Your task to perform on an android device: turn notification dots off Image 0: 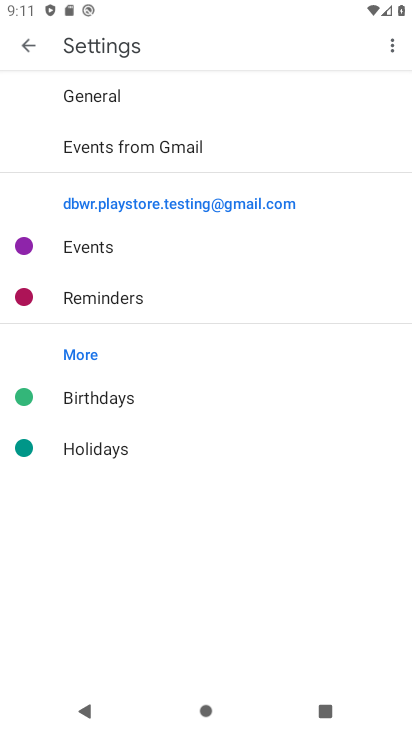
Step 0: press home button
Your task to perform on an android device: turn notification dots off Image 1: 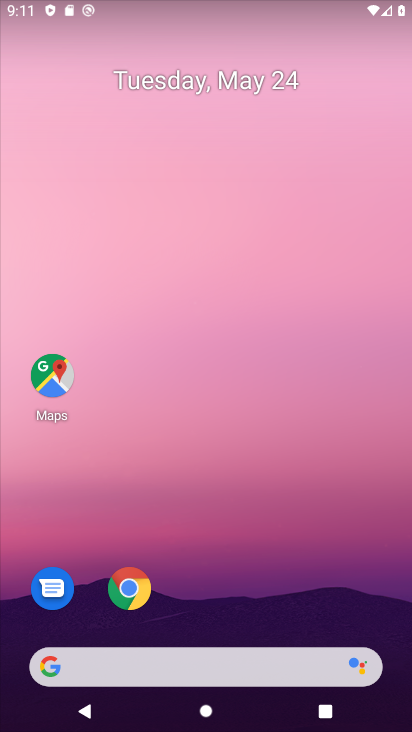
Step 1: drag from (187, 572) to (287, 1)
Your task to perform on an android device: turn notification dots off Image 2: 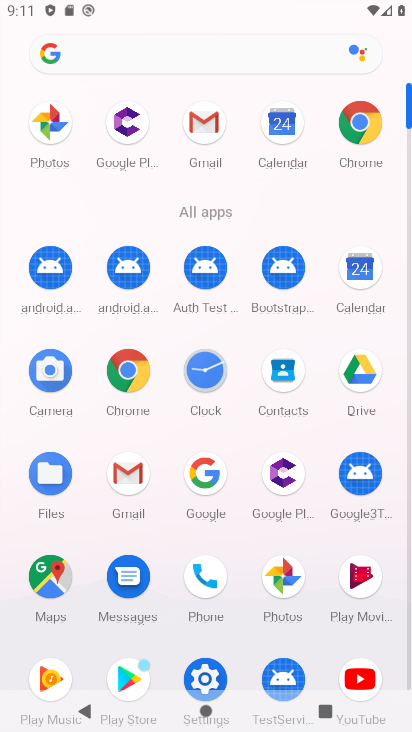
Step 2: click (210, 672)
Your task to perform on an android device: turn notification dots off Image 3: 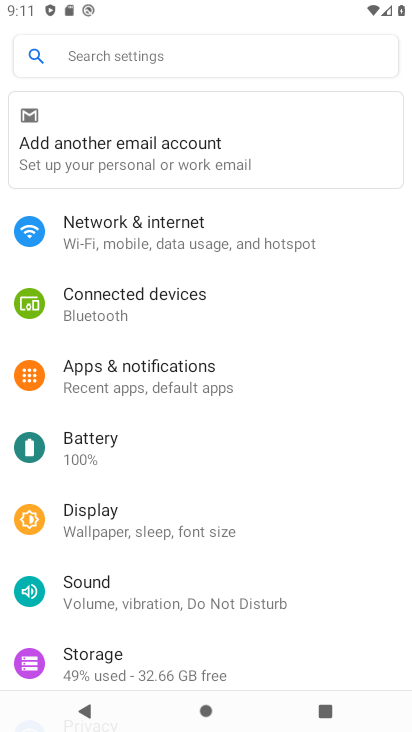
Step 3: drag from (162, 293) to (194, 155)
Your task to perform on an android device: turn notification dots off Image 4: 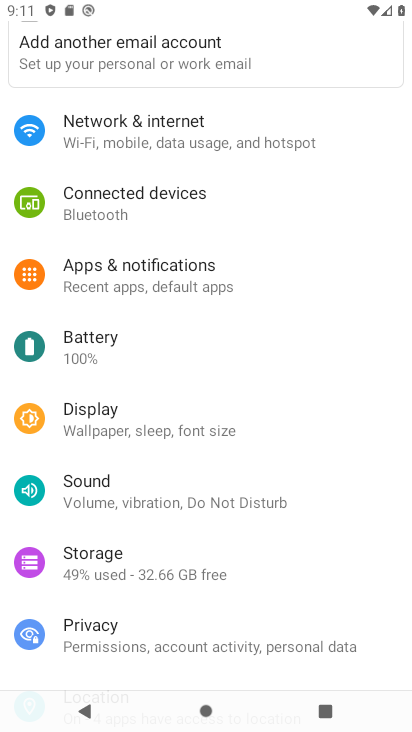
Step 4: click (172, 268)
Your task to perform on an android device: turn notification dots off Image 5: 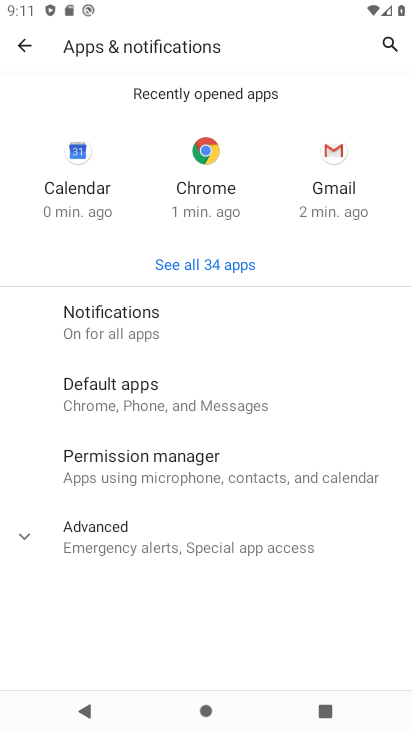
Step 5: click (139, 315)
Your task to perform on an android device: turn notification dots off Image 6: 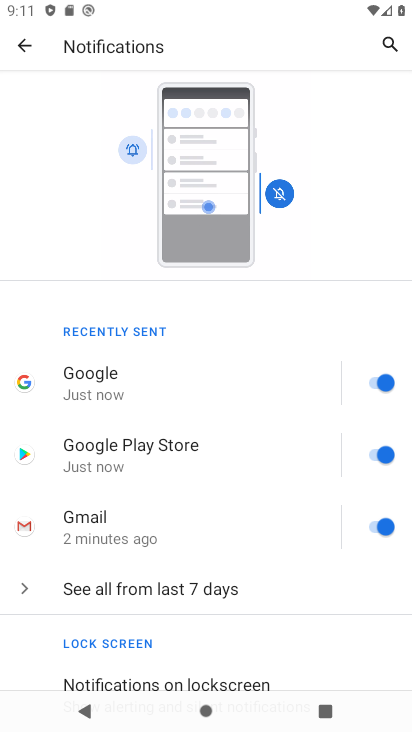
Step 6: drag from (177, 695) to (284, 146)
Your task to perform on an android device: turn notification dots off Image 7: 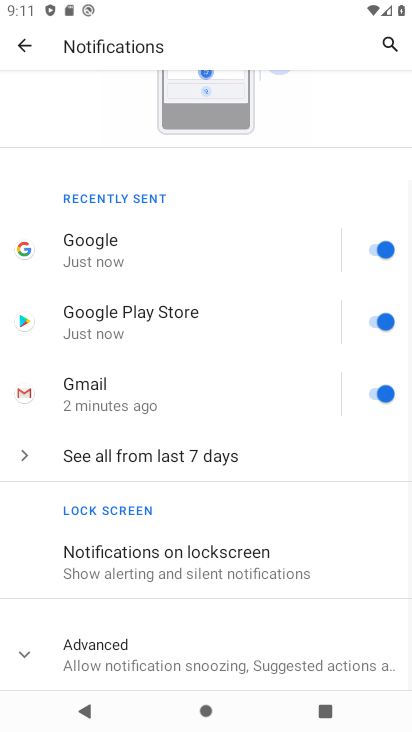
Step 7: click (164, 662)
Your task to perform on an android device: turn notification dots off Image 8: 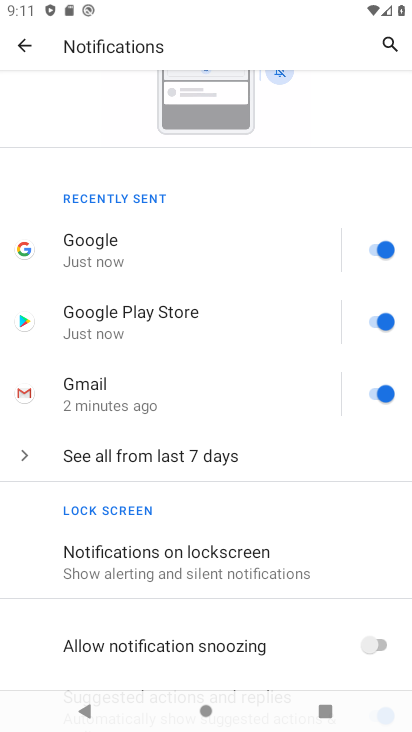
Step 8: drag from (195, 654) to (196, 145)
Your task to perform on an android device: turn notification dots off Image 9: 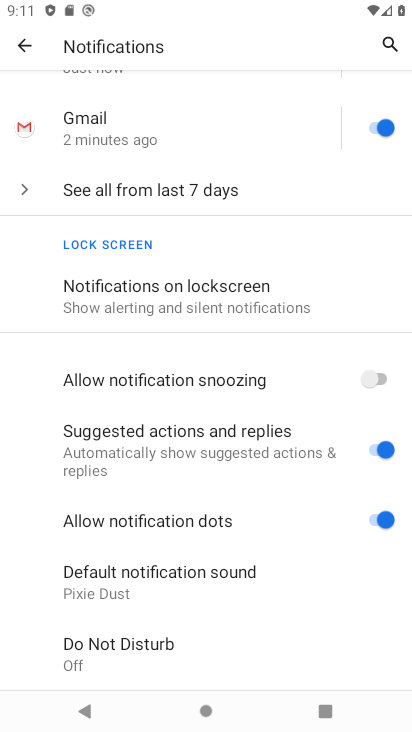
Step 9: click (389, 515)
Your task to perform on an android device: turn notification dots off Image 10: 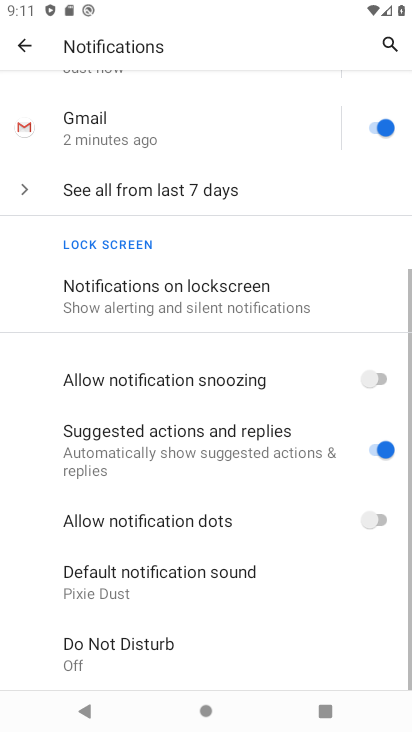
Step 10: task complete